Your task to perform on an android device: open the mobile data screen to see how much data has been used Image 0: 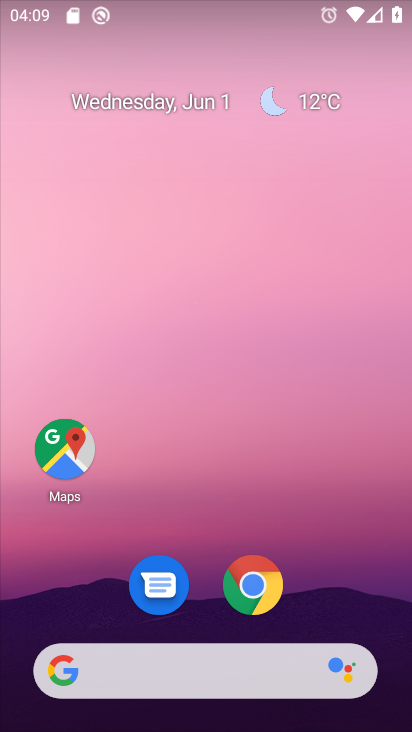
Step 0: drag from (264, 454) to (292, 18)
Your task to perform on an android device: open the mobile data screen to see how much data has been used Image 1: 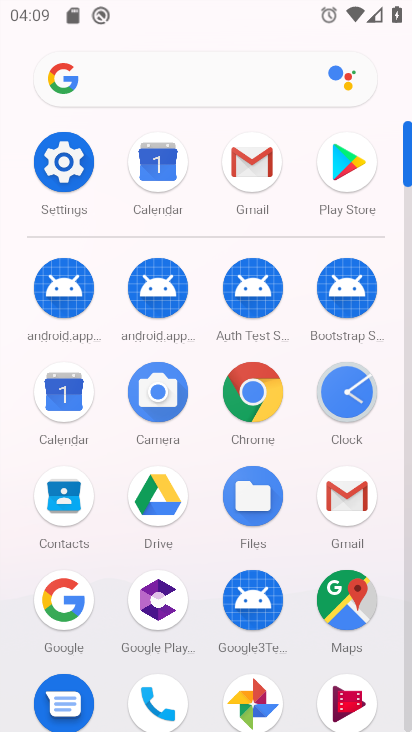
Step 1: click (61, 164)
Your task to perform on an android device: open the mobile data screen to see how much data has been used Image 2: 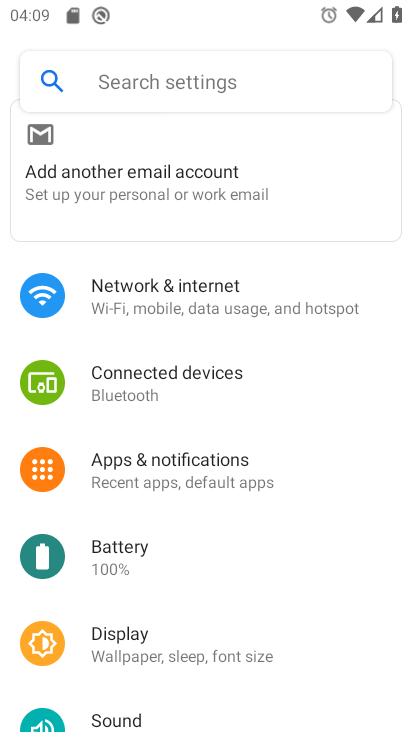
Step 2: click (204, 291)
Your task to perform on an android device: open the mobile data screen to see how much data has been used Image 3: 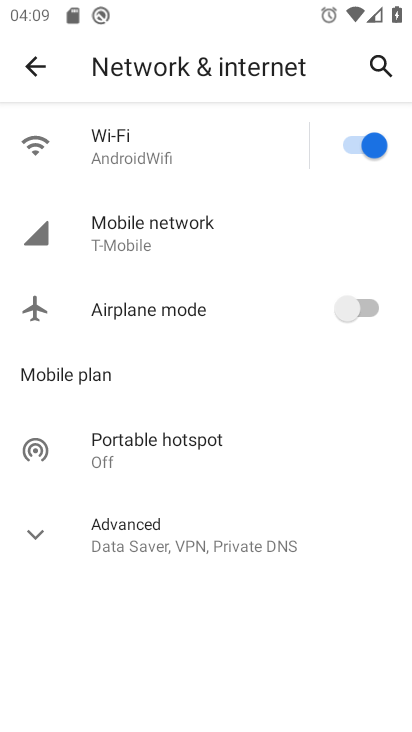
Step 3: click (223, 246)
Your task to perform on an android device: open the mobile data screen to see how much data has been used Image 4: 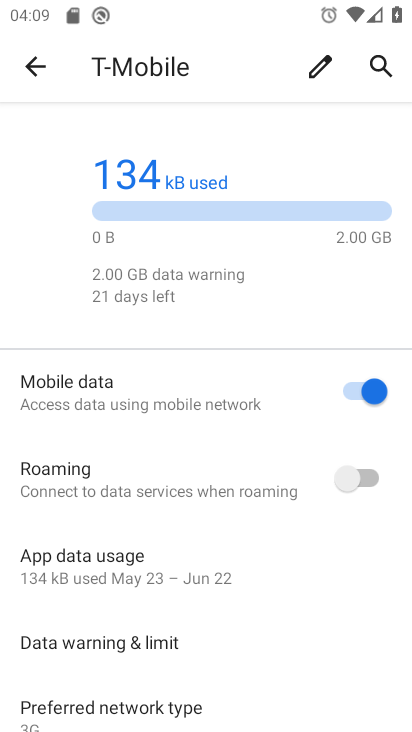
Step 4: task complete